Your task to perform on an android device: Do I have any events this weekend? Image 0: 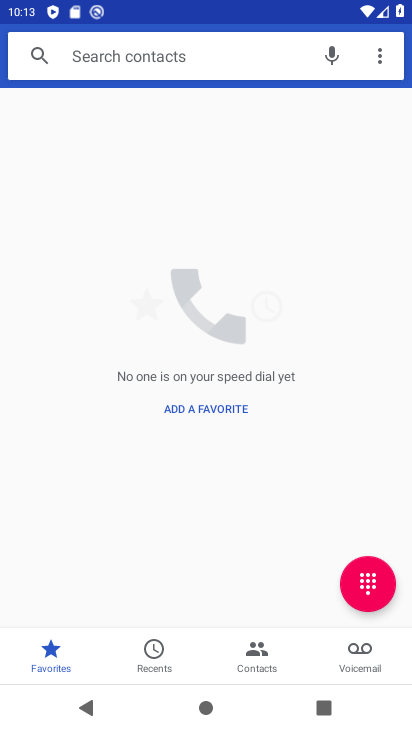
Step 0: press home button
Your task to perform on an android device: Do I have any events this weekend? Image 1: 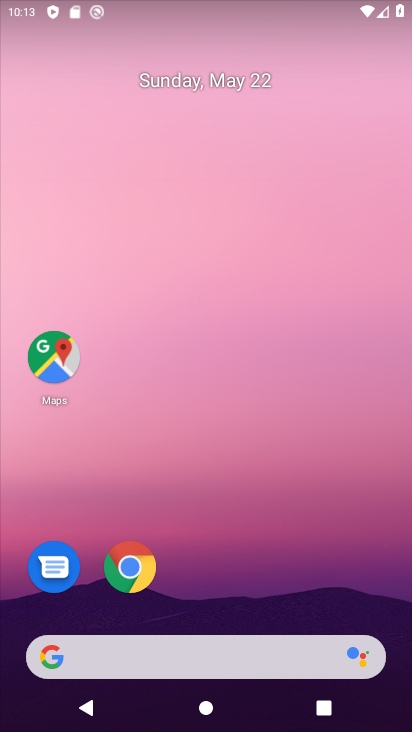
Step 1: drag from (377, 610) to (349, 58)
Your task to perform on an android device: Do I have any events this weekend? Image 2: 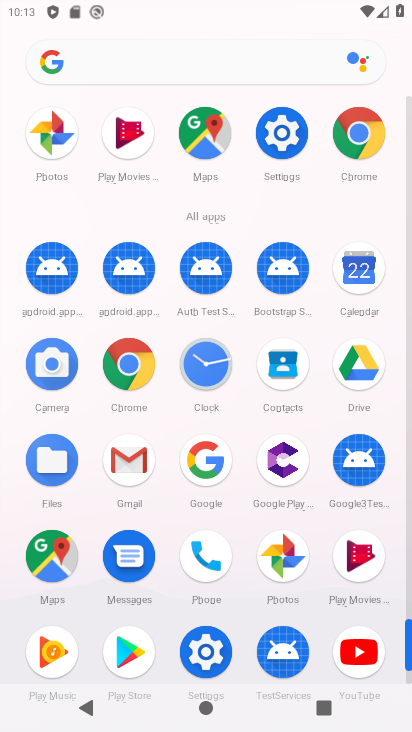
Step 2: click (409, 679)
Your task to perform on an android device: Do I have any events this weekend? Image 3: 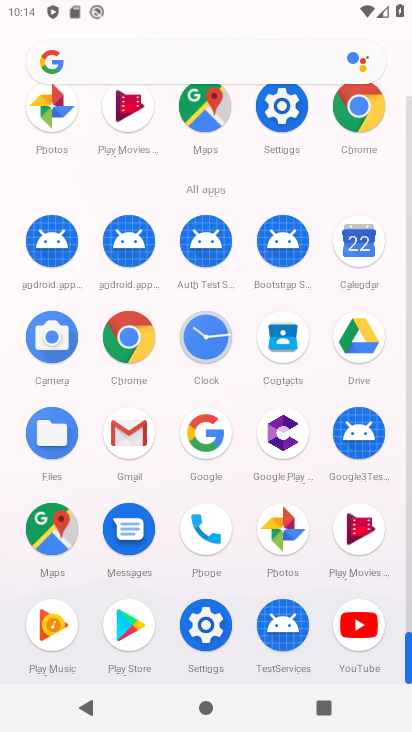
Step 3: click (354, 241)
Your task to perform on an android device: Do I have any events this weekend? Image 4: 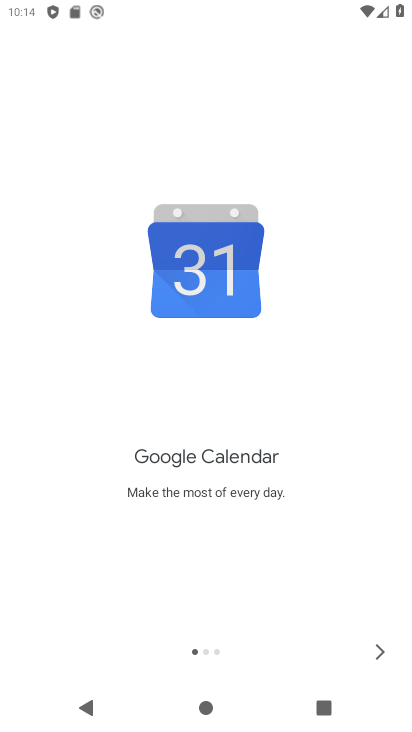
Step 4: click (376, 650)
Your task to perform on an android device: Do I have any events this weekend? Image 5: 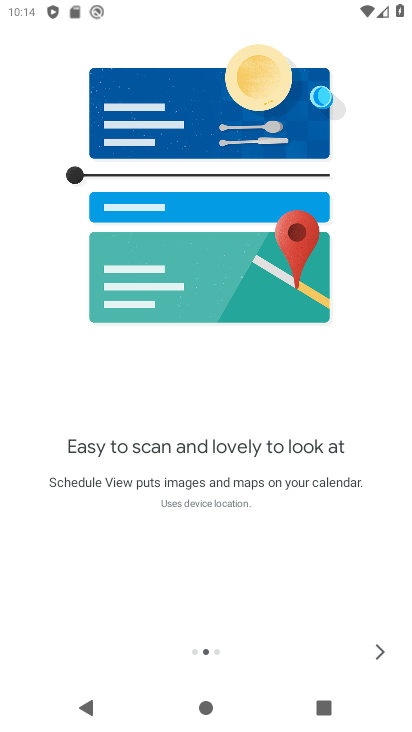
Step 5: click (376, 650)
Your task to perform on an android device: Do I have any events this weekend? Image 6: 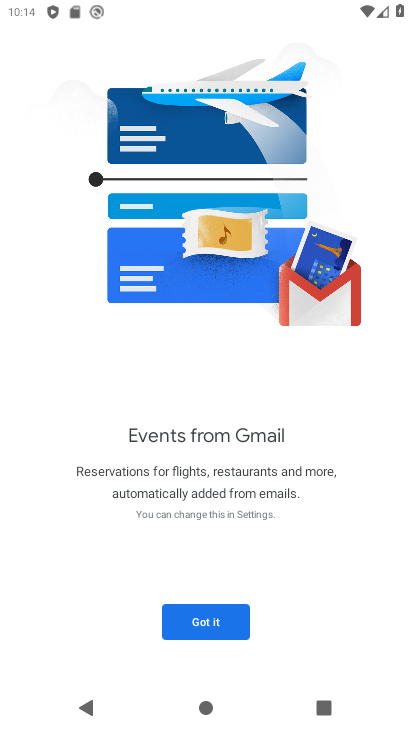
Step 6: click (201, 624)
Your task to perform on an android device: Do I have any events this weekend? Image 7: 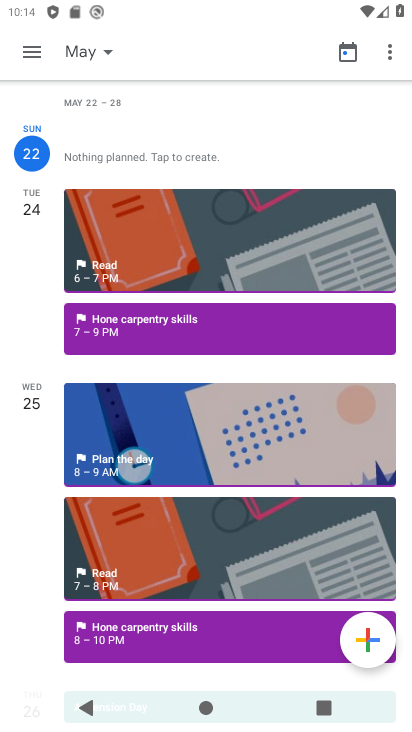
Step 7: click (32, 55)
Your task to perform on an android device: Do I have any events this weekend? Image 8: 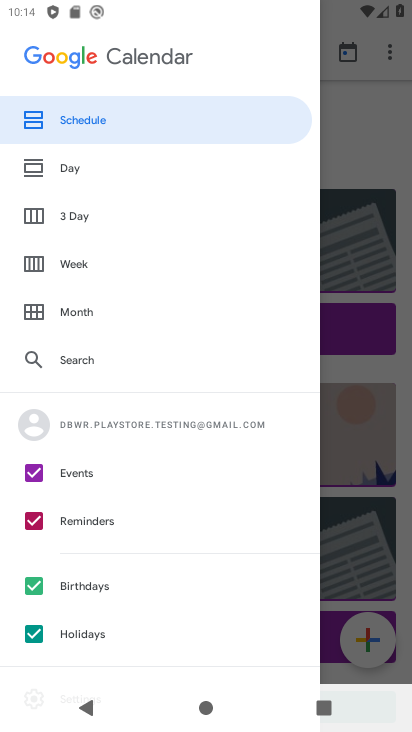
Step 8: click (68, 261)
Your task to perform on an android device: Do I have any events this weekend? Image 9: 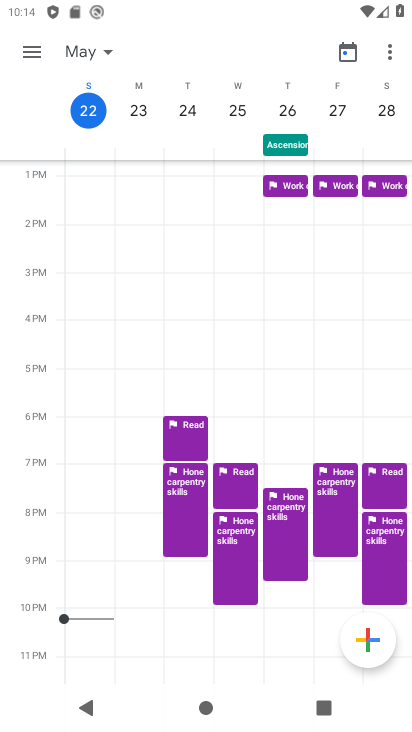
Step 9: task complete